Your task to perform on an android device: open a new tab in the chrome app Image 0: 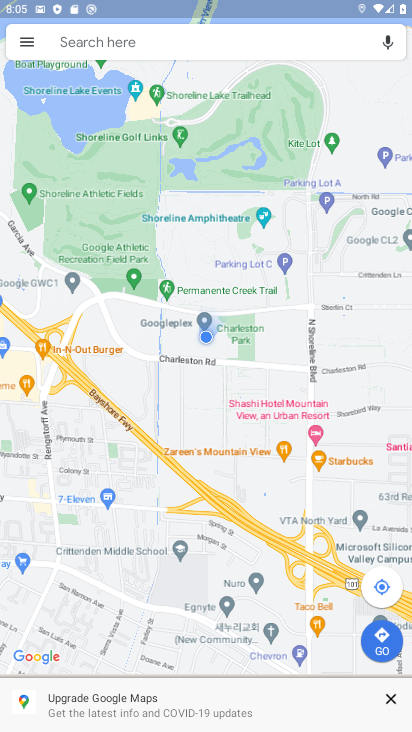
Step 0: press home button
Your task to perform on an android device: open a new tab in the chrome app Image 1: 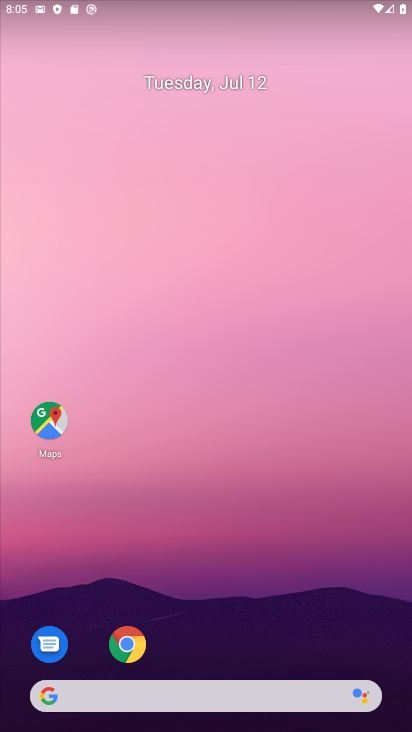
Step 1: click (127, 646)
Your task to perform on an android device: open a new tab in the chrome app Image 2: 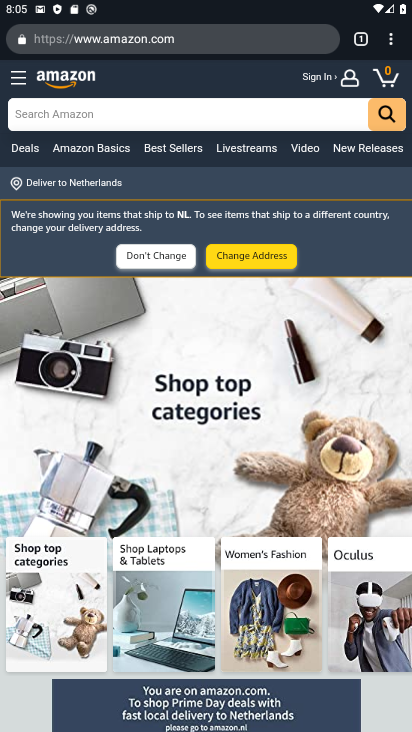
Step 2: click (392, 40)
Your task to perform on an android device: open a new tab in the chrome app Image 3: 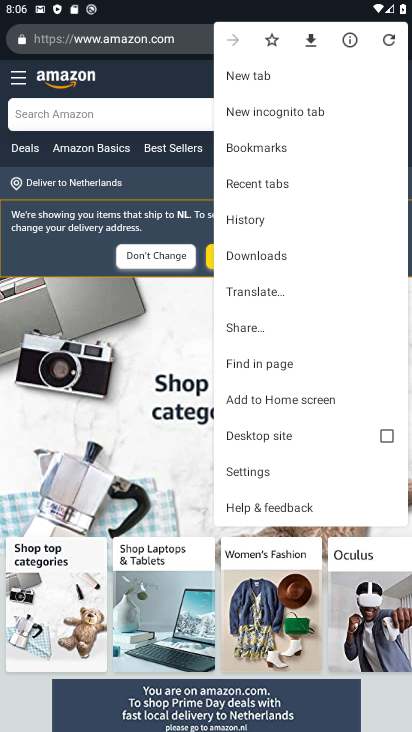
Step 3: click (264, 76)
Your task to perform on an android device: open a new tab in the chrome app Image 4: 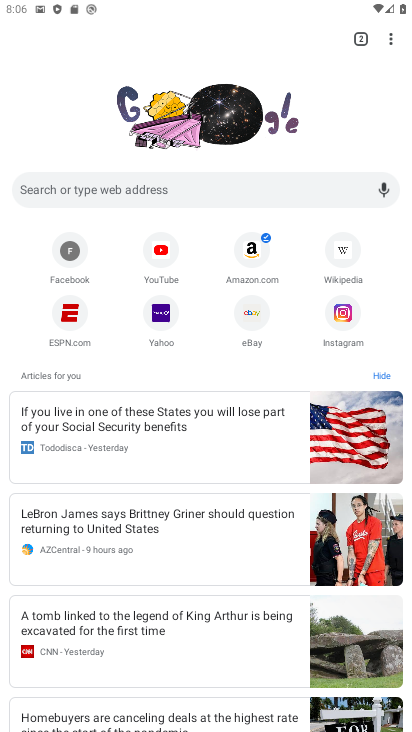
Step 4: task complete